Your task to perform on an android device: Search for the new nintendo switch on Walmart. Image 0: 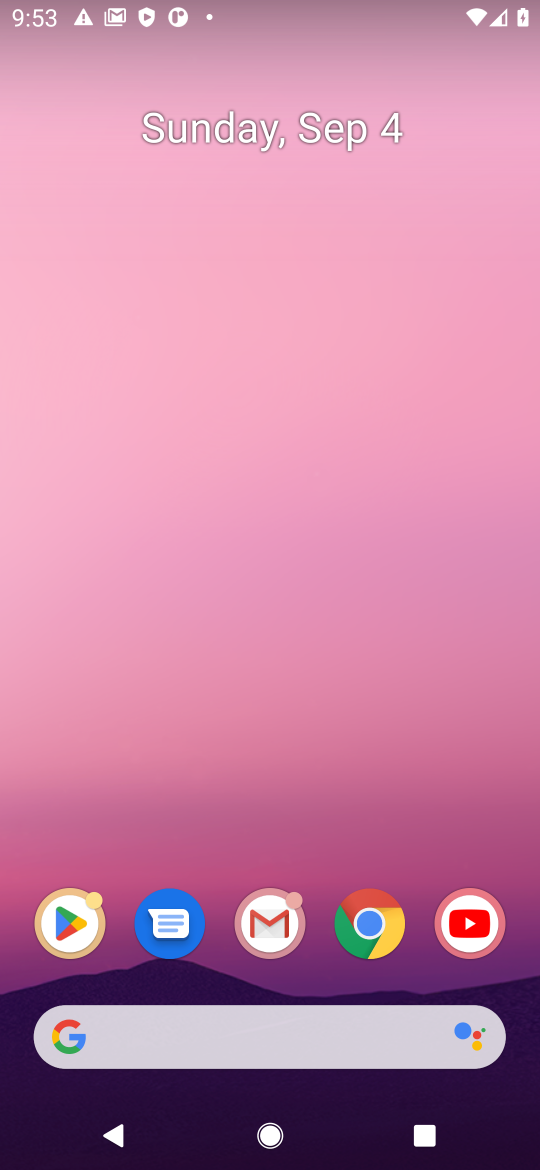
Step 0: press home button
Your task to perform on an android device: Search for the new nintendo switch on Walmart. Image 1: 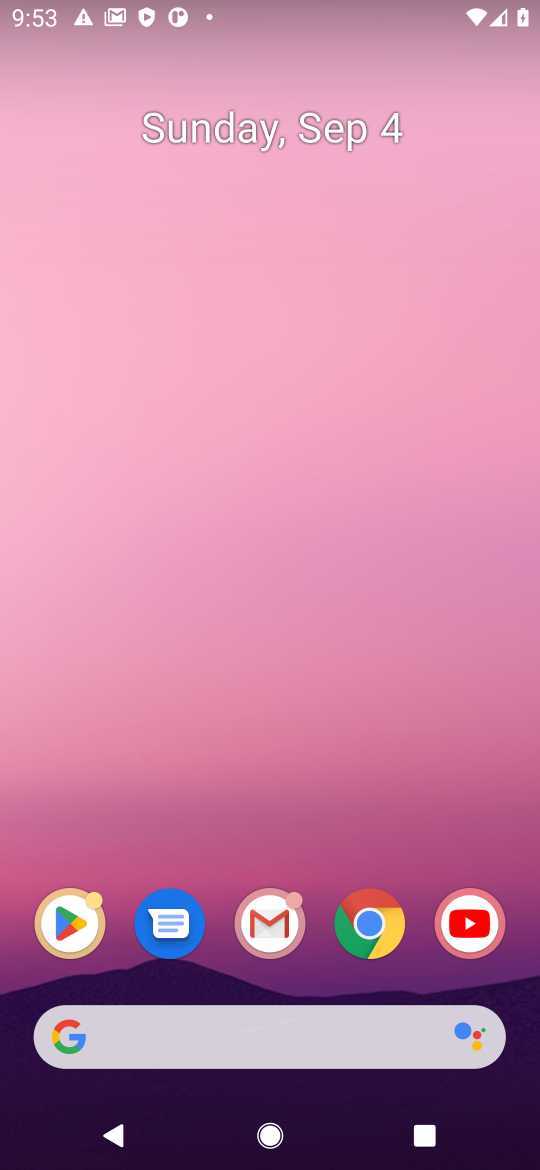
Step 1: click (367, 1033)
Your task to perform on an android device: Search for the new nintendo switch on Walmart. Image 2: 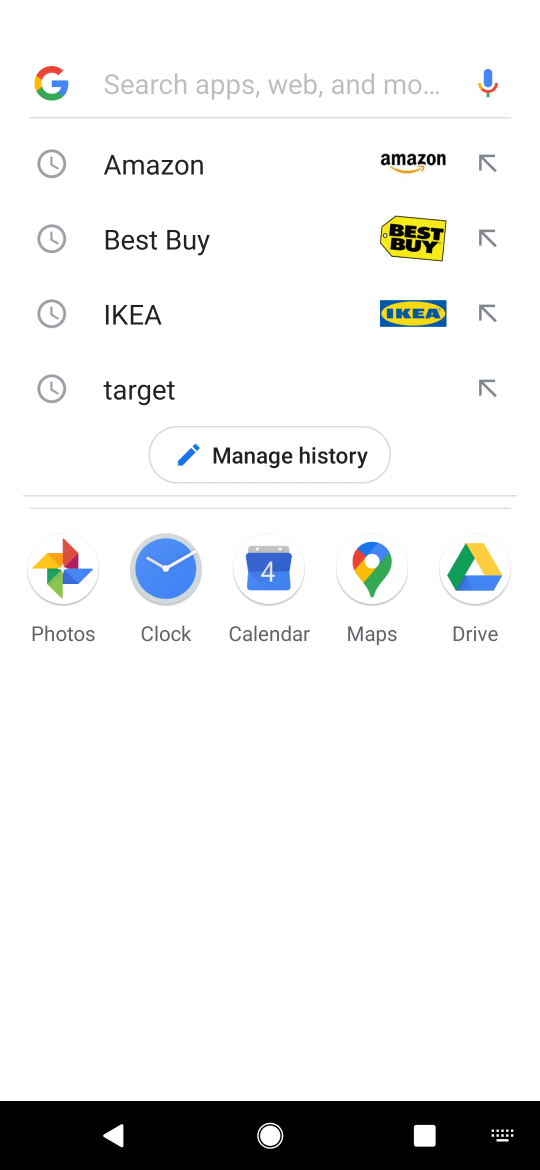
Step 2: click (294, 84)
Your task to perform on an android device: Search for the new nintendo switch on Walmart. Image 3: 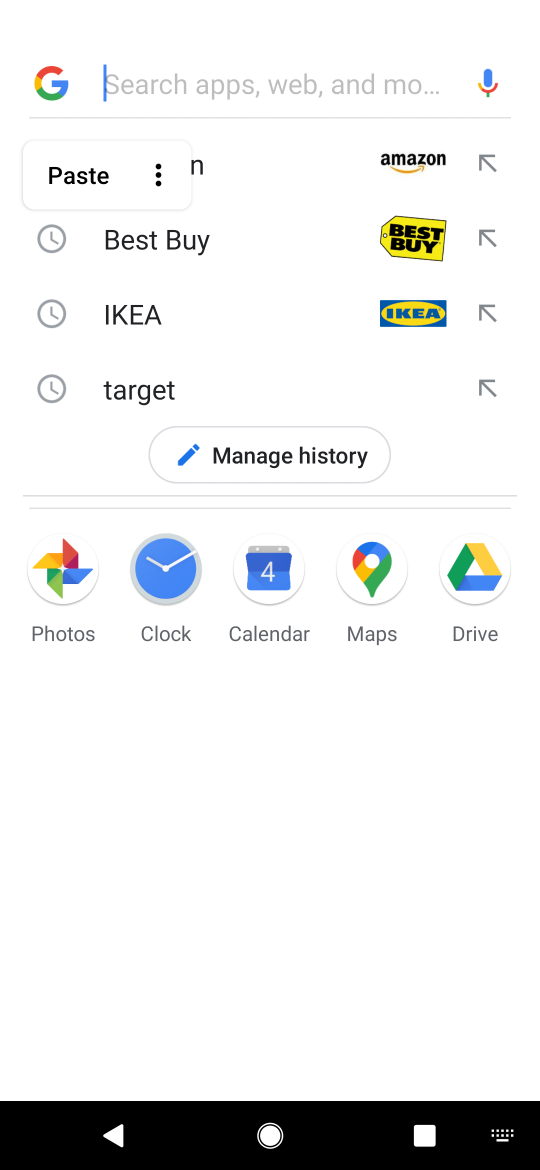
Step 3: press enter
Your task to perform on an android device: Search for the new nintendo switch on Walmart. Image 4: 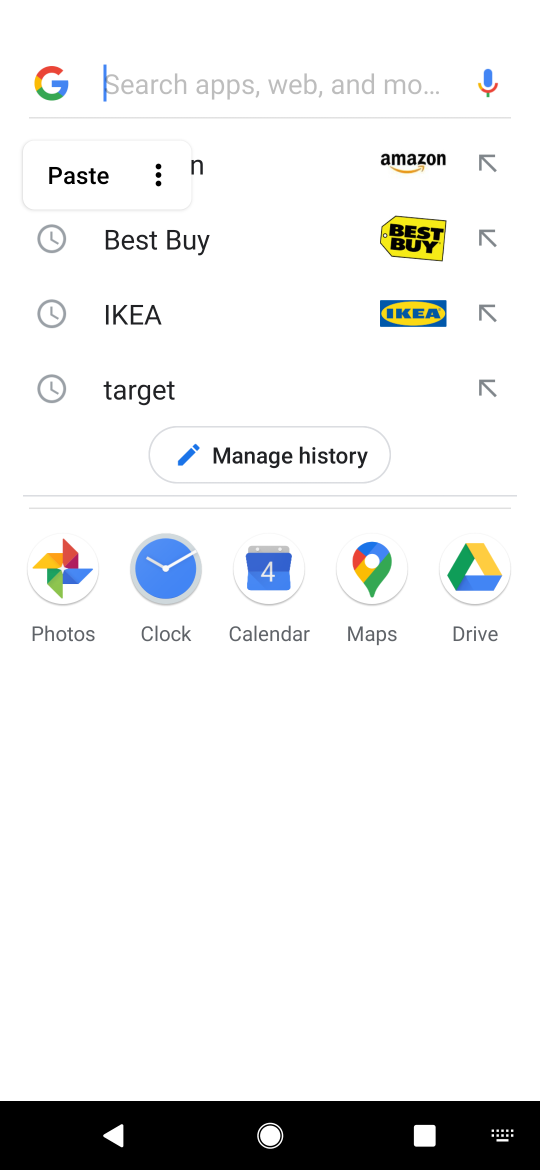
Step 4: type "walmart"
Your task to perform on an android device: Search for the new nintendo switch on Walmart. Image 5: 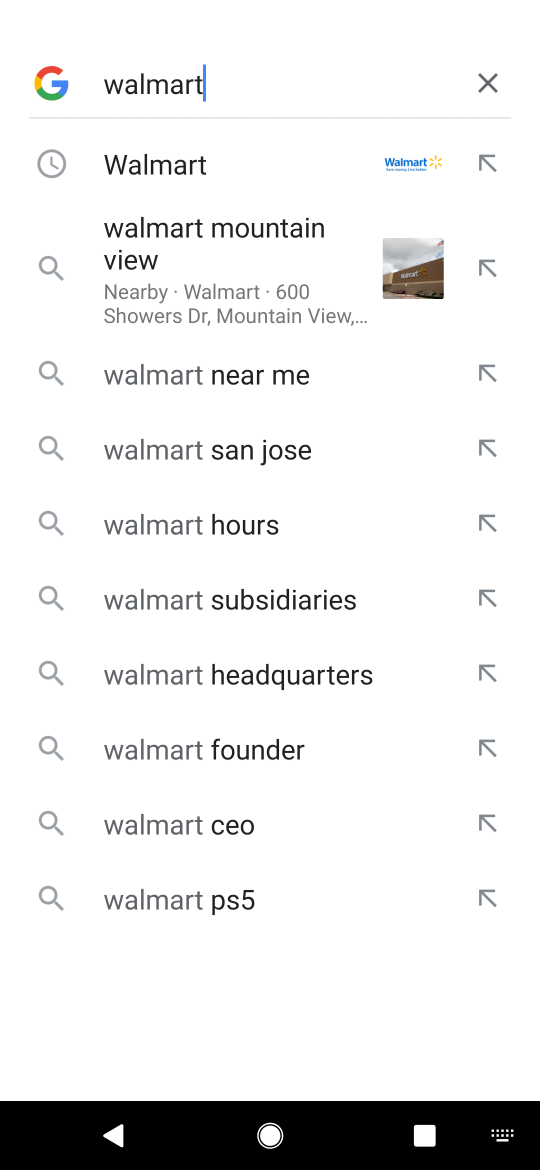
Step 5: click (218, 153)
Your task to perform on an android device: Search for the new nintendo switch on Walmart. Image 6: 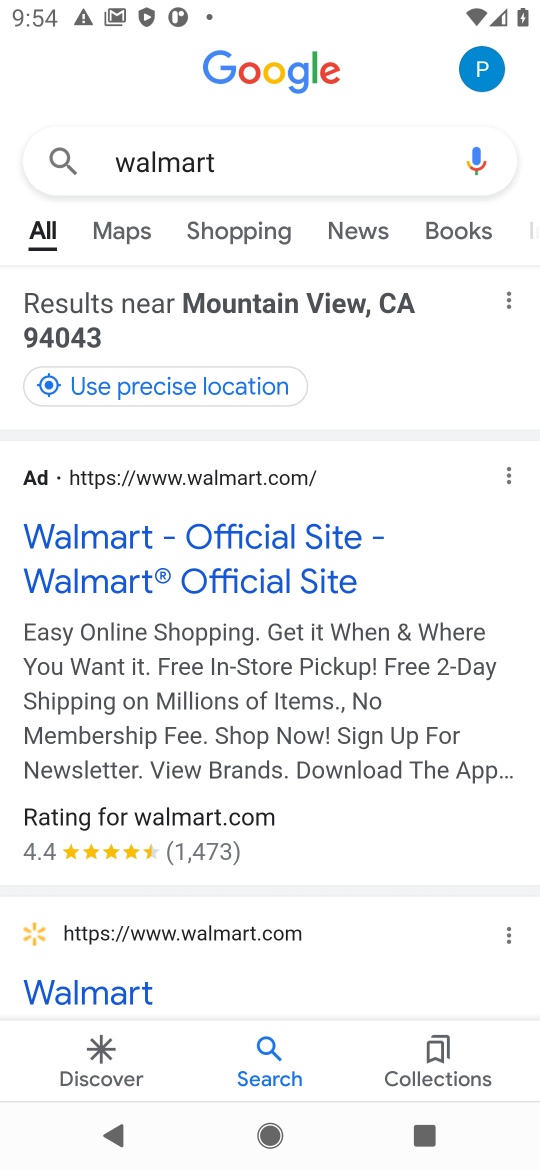
Step 6: click (263, 559)
Your task to perform on an android device: Search for the new nintendo switch on Walmart. Image 7: 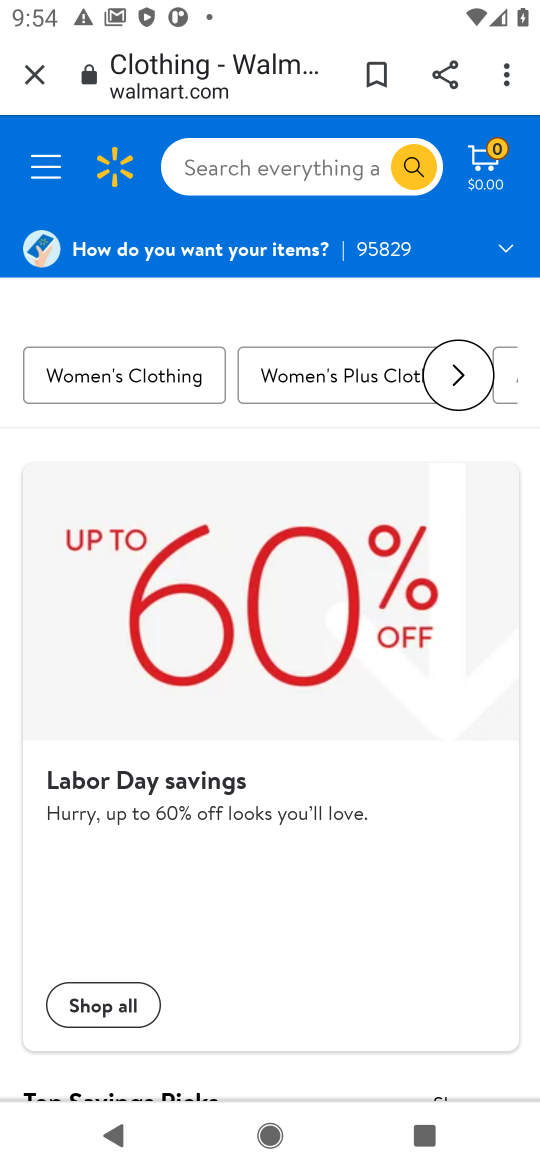
Step 7: click (277, 158)
Your task to perform on an android device: Search for the new nintendo switch on Walmart. Image 8: 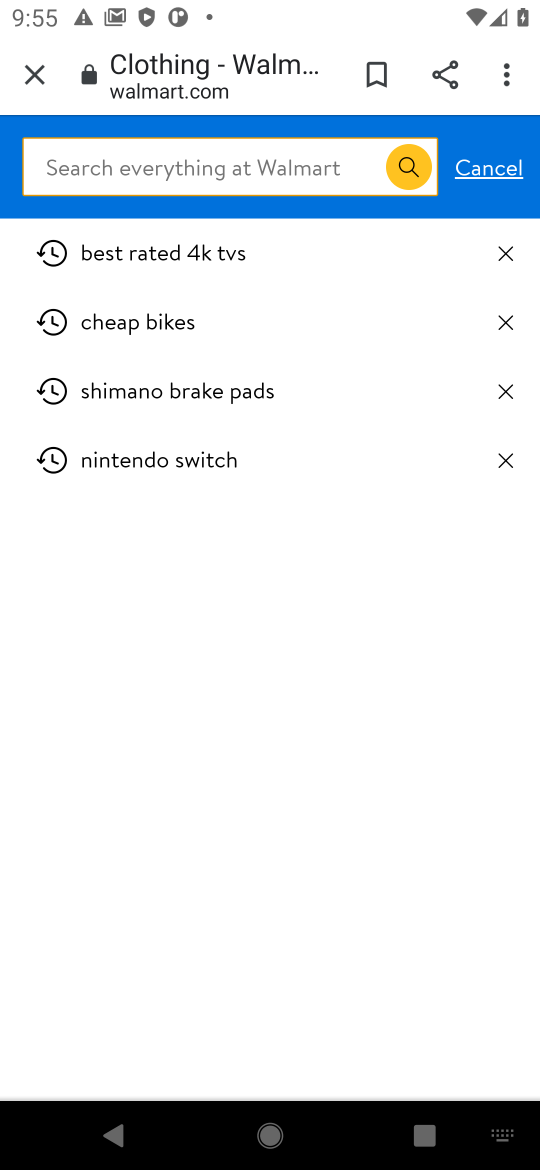
Step 8: press enter
Your task to perform on an android device: Search for the new nintendo switch on Walmart. Image 9: 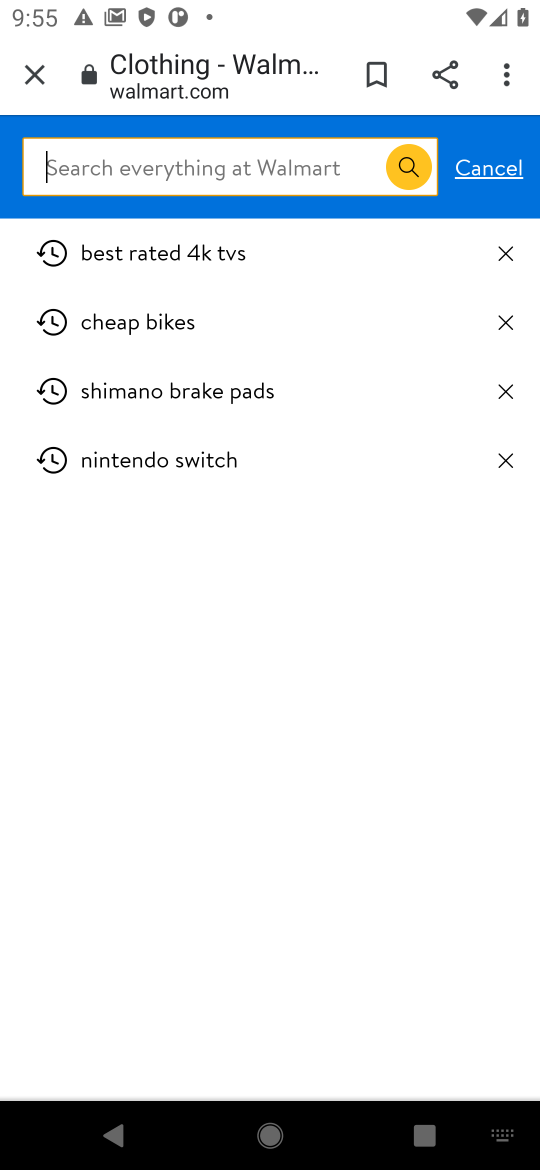
Step 9: type "new nintendo switch"
Your task to perform on an android device: Search for the new nintendo switch on Walmart. Image 10: 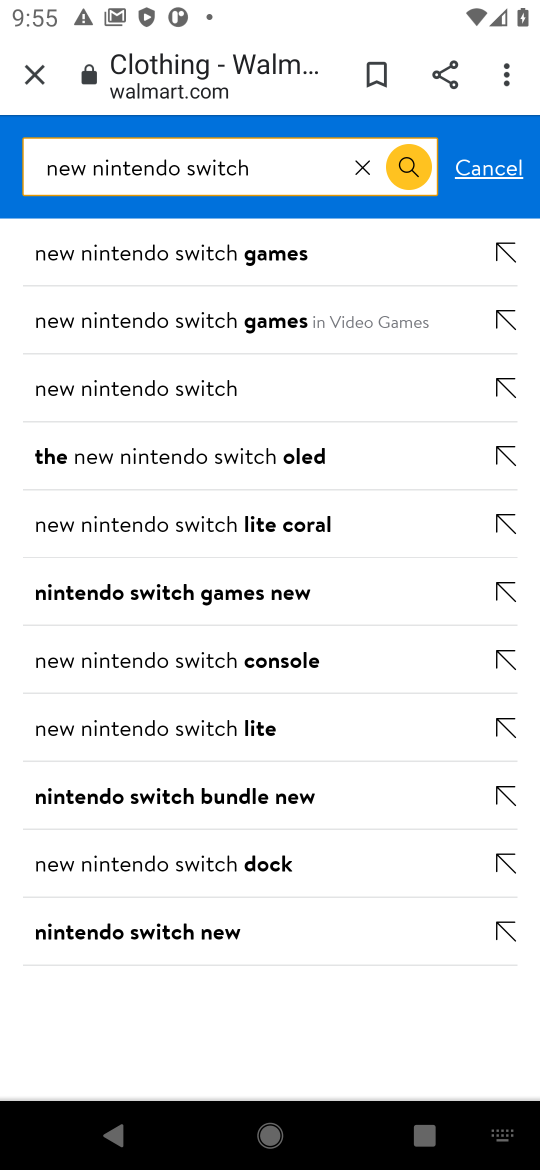
Step 10: click (255, 388)
Your task to perform on an android device: Search for the new nintendo switch on Walmart. Image 11: 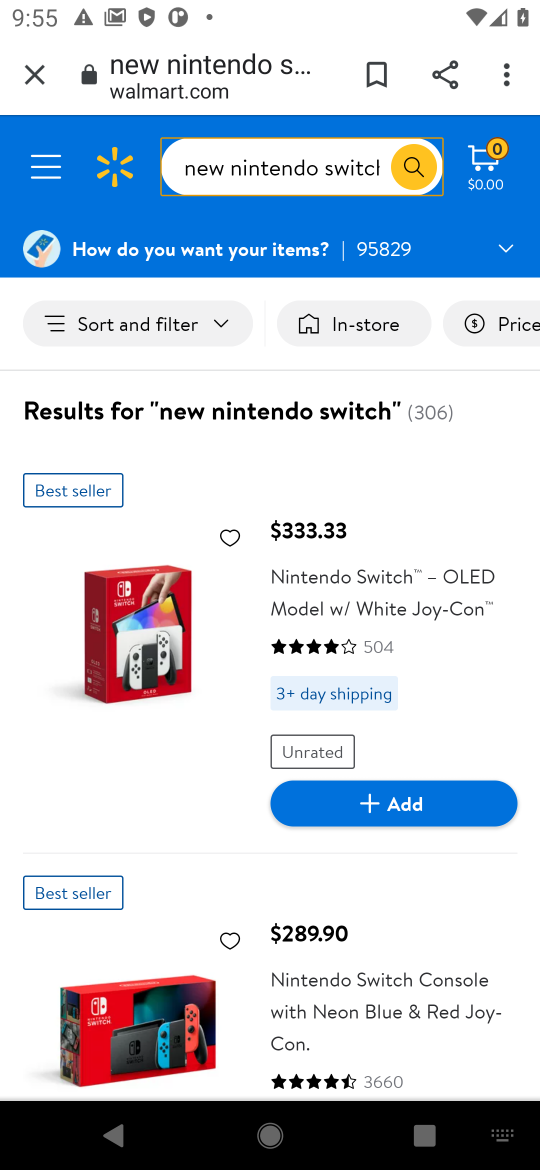
Step 11: task complete